Your task to perform on an android device: open app "WhatsApp Messenger" (install if not already installed) Image 0: 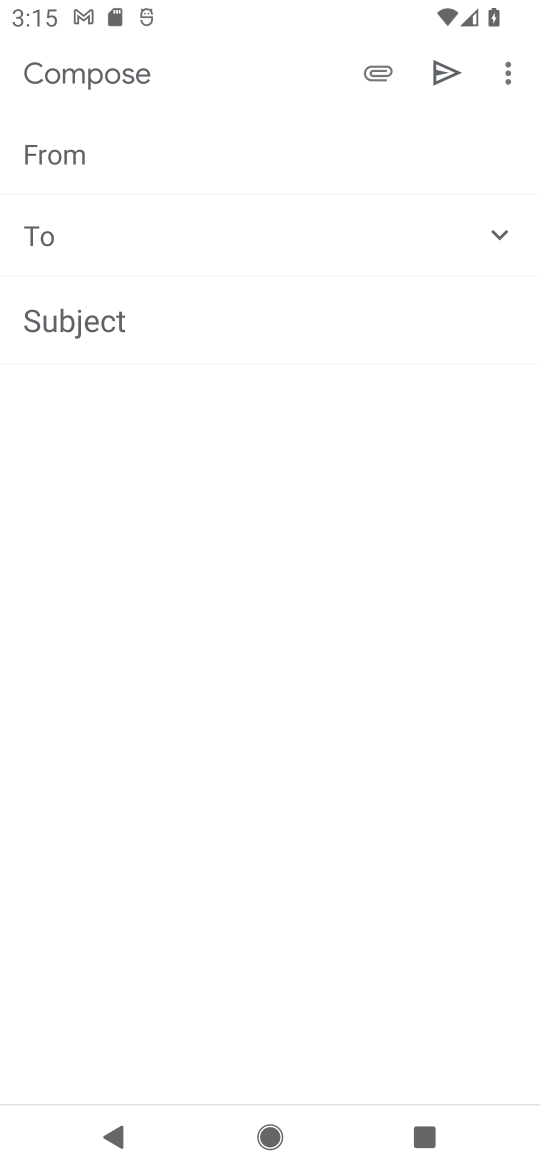
Step 0: press home button
Your task to perform on an android device: open app "WhatsApp Messenger" (install if not already installed) Image 1: 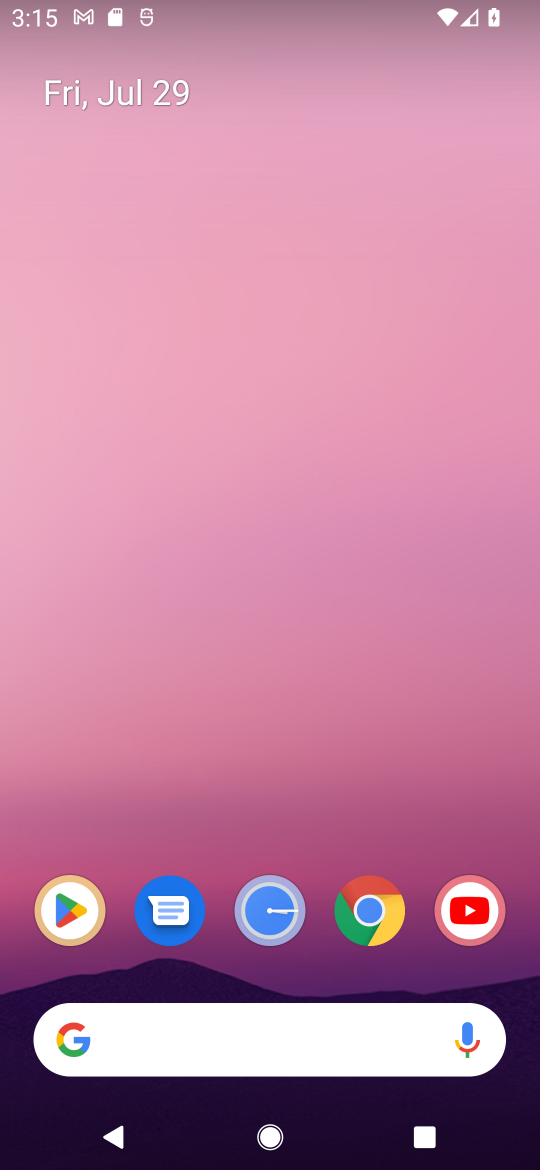
Step 1: drag from (299, 822) to (315, 140)
Your task to perform on an android device: open app "WhatsApp Messenger" (install if not already installed) Image 2: 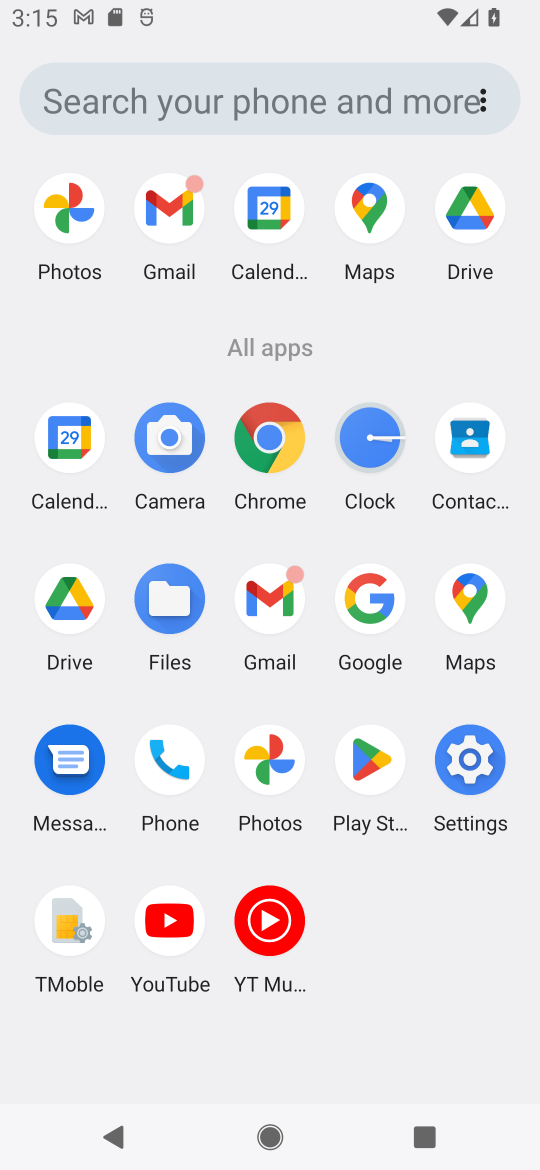
Step 2: click (383, 795)
Your task to perform on an android device: open app "WhatsApp Messenger" (install if not already installed) Image 3: 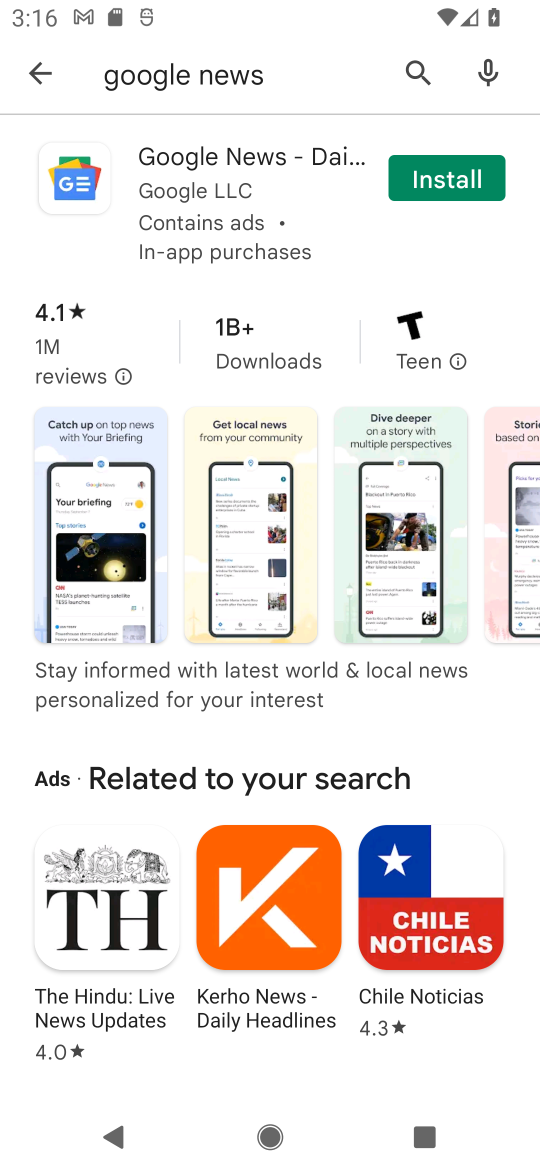
Step 3: click (403, 67)
Your task to perform on an android device: open app "WhatsApp Messenger" (install if not already installed) Image 4: 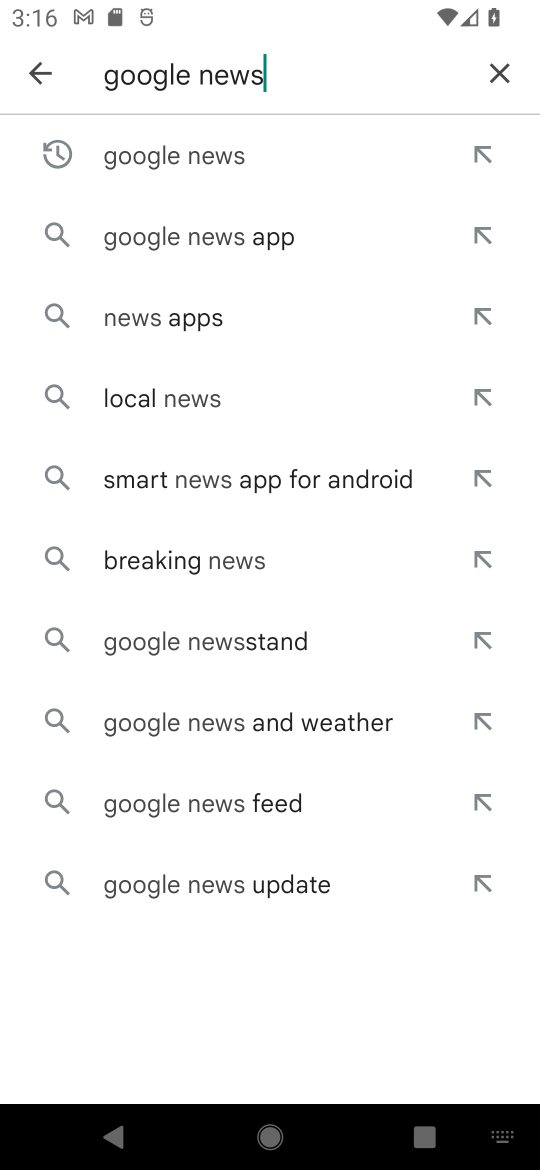
Step 4: click (506, 70)
Your task to perform on an android device: open app "WhatsApp Messenger" (install if not already installed) Image 5: 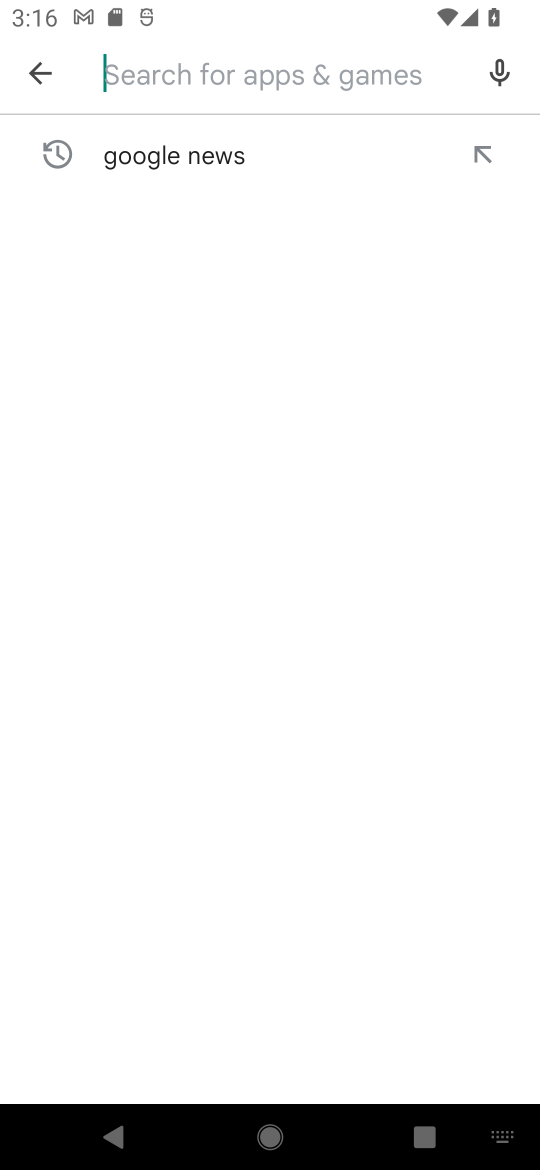
Step 5: type "Whatsapp messenger"
Your task to perform on an android device: open app "WhatsApp Messenger" (install if not already installed) Image 6: 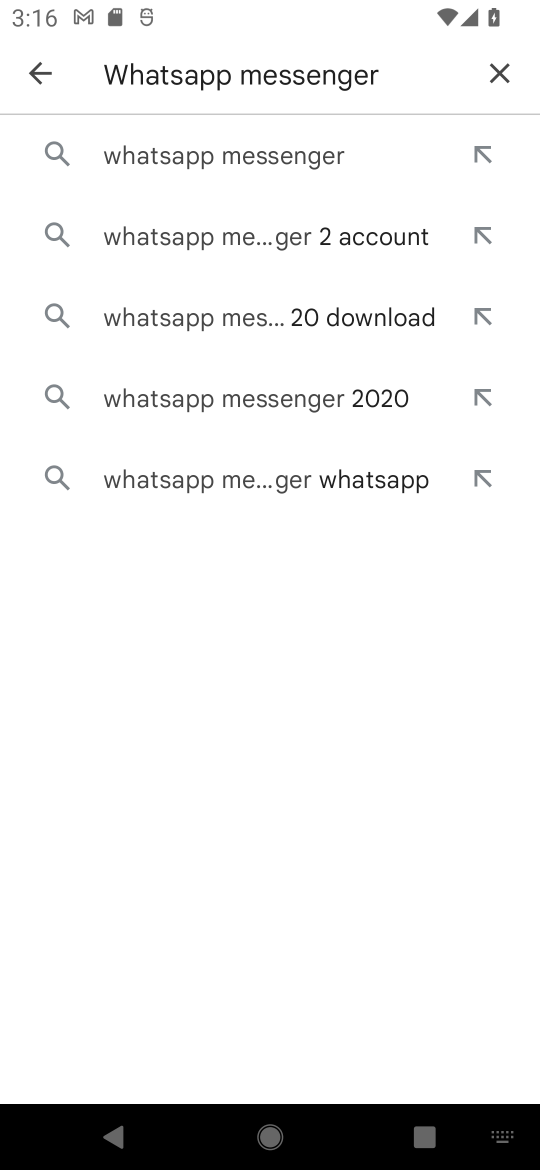
Step 6: click (212, 145)
Your task to perform on an android device: open app "WhatsApp Messenger" (install if not already installed) Image 7: 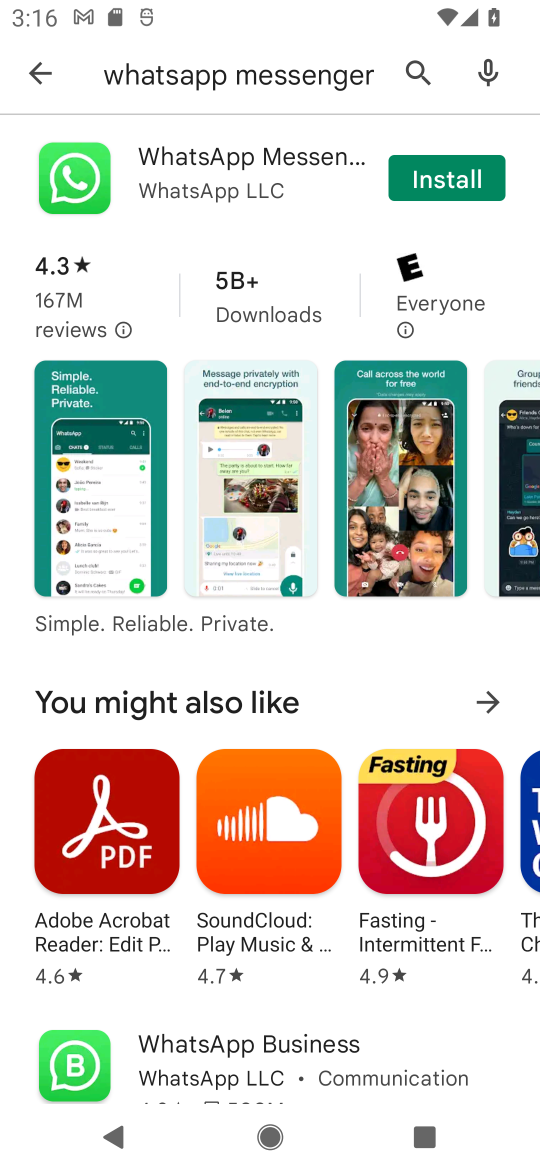
Step 7: click (422, 181)
Your task to perform on an android device: open app "WhatsApp Messenger" (install if not already installed) Image 8: 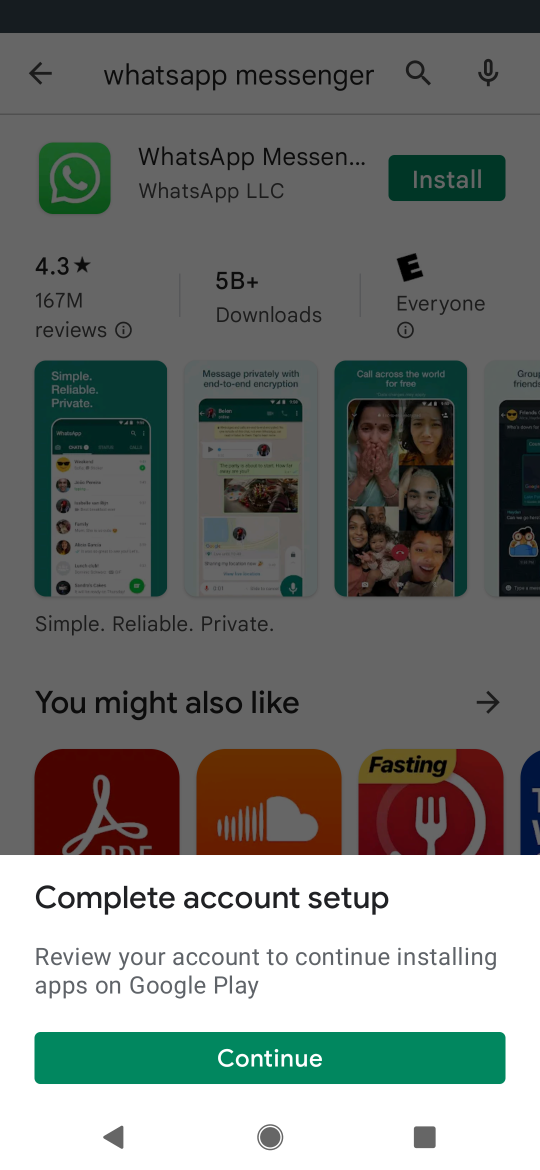
Step 8: task complete